Your task to perform on an android device: open app "Booking.com: Hotels and more" (install if not already installed) Image 0: 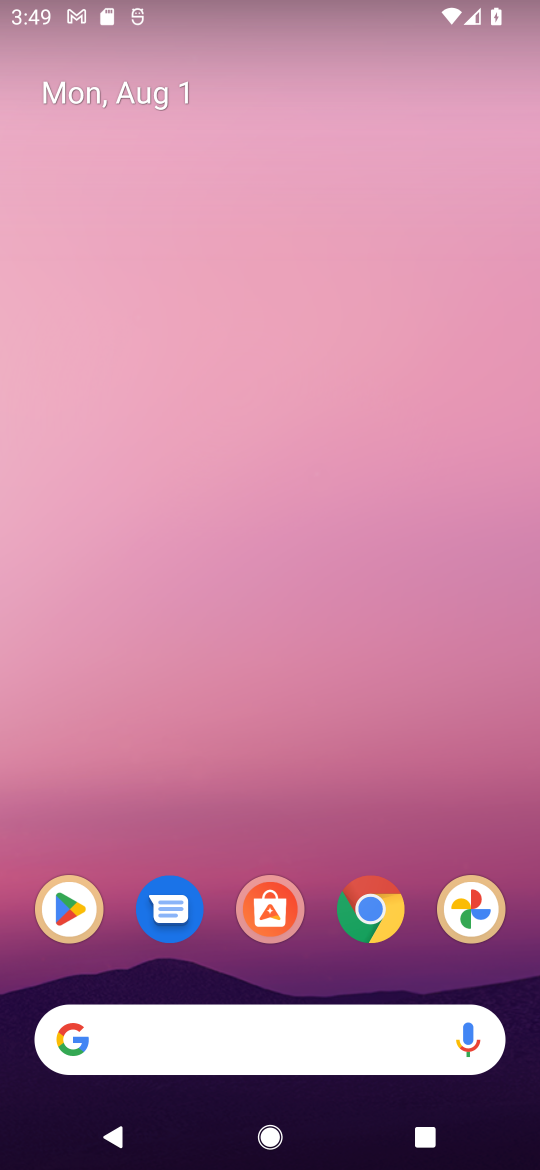
Step 0: click (77, 914)
Your task to perform on an android device: open app "Booking.com: Hotels and more" (install if not already installed) Image 1: 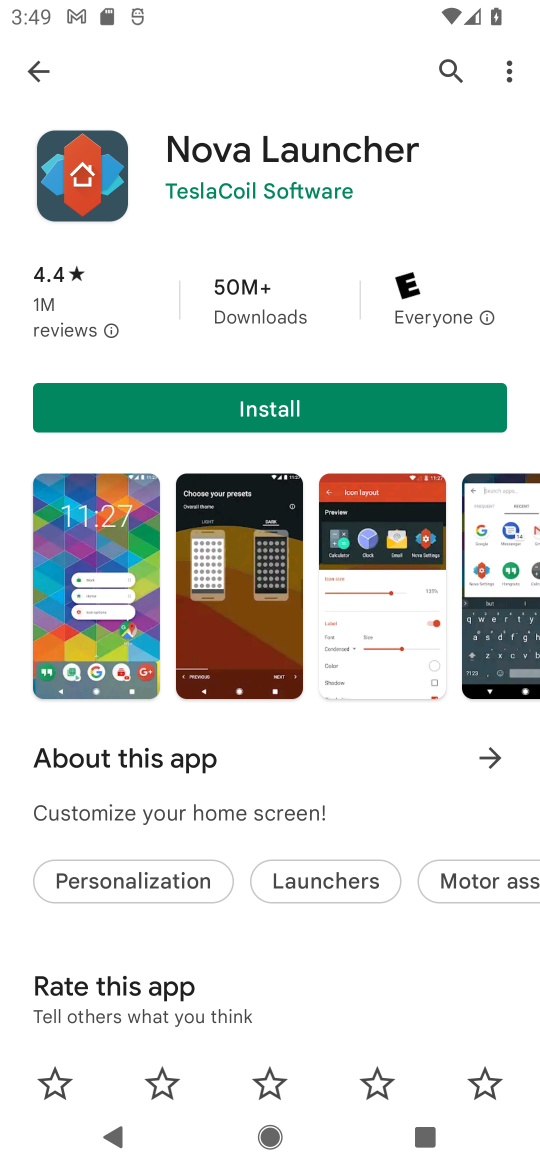
Step 1: click (34, 66)
Your task to perform on an android device: open app "Booking.com: Hotels and more" (install if not already installed) Image 2: 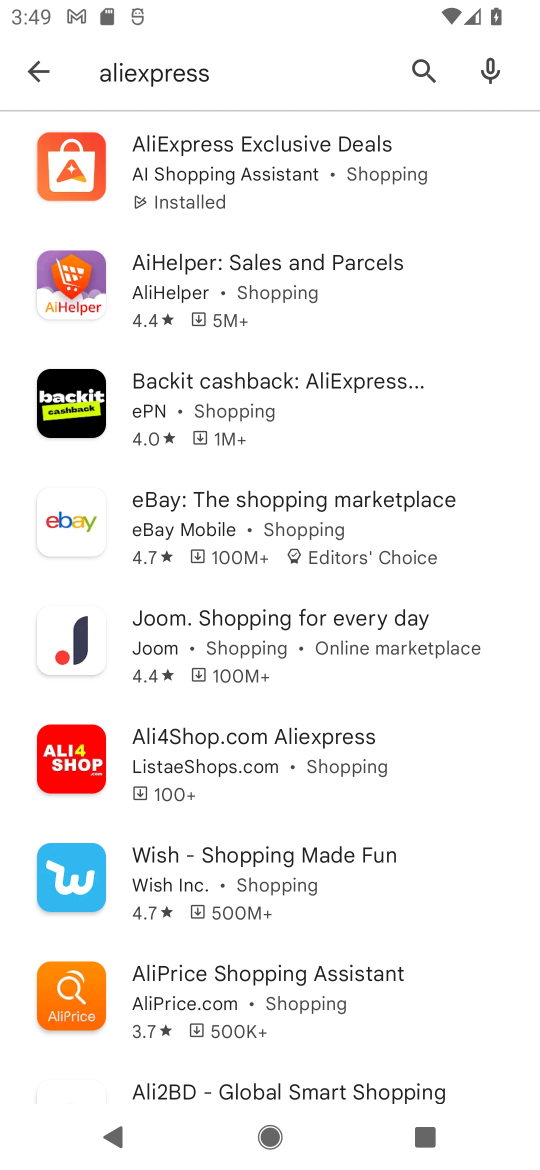
Step 2: click (249, 80)
Your task to perform on an android device: open app "Booking.com: Hotels and more" (install if not already installed) Image 3: 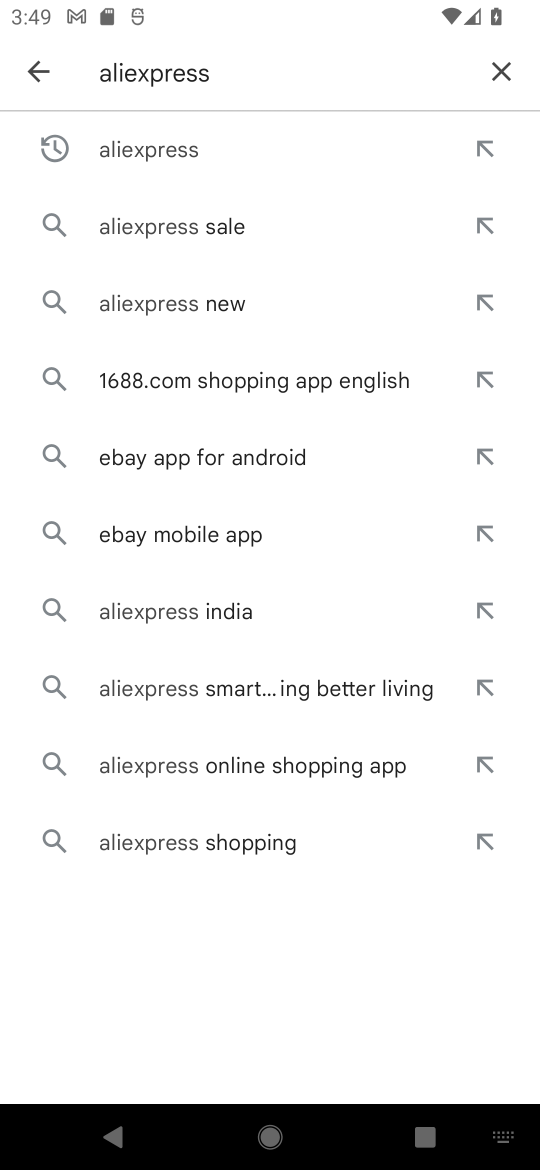
Step 3: click (514, 69)
Your task to perform on an android device: open app "Booking.com: Hotels and more" (install if not already installed) Image 4: 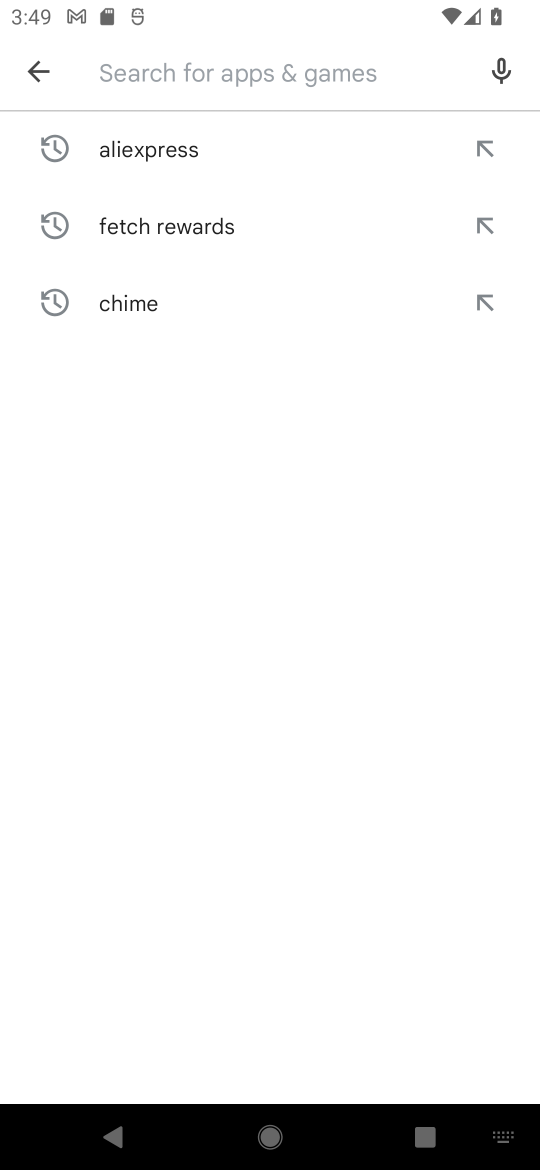
Step 4: type "Booking.com"
Your task to perform on an android device: open app "Booking.com: Hotels and more" (install if not already installed) Image 5: 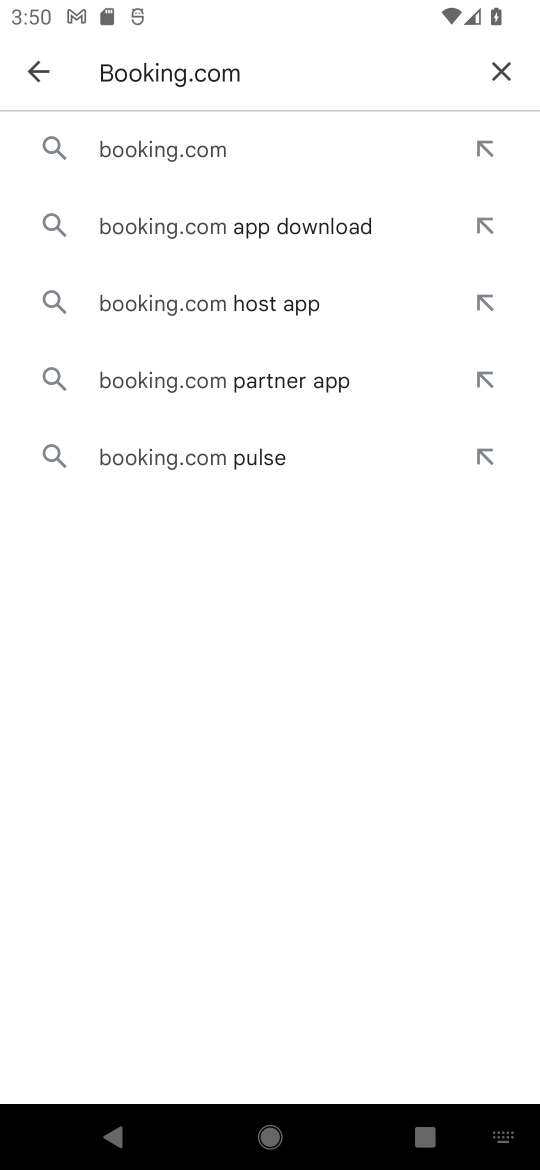
Step 5: click (178, 156)
Your task to perform on an android device: open app "Booking.com: Hotels and more" (install if not already installed) Image 6: 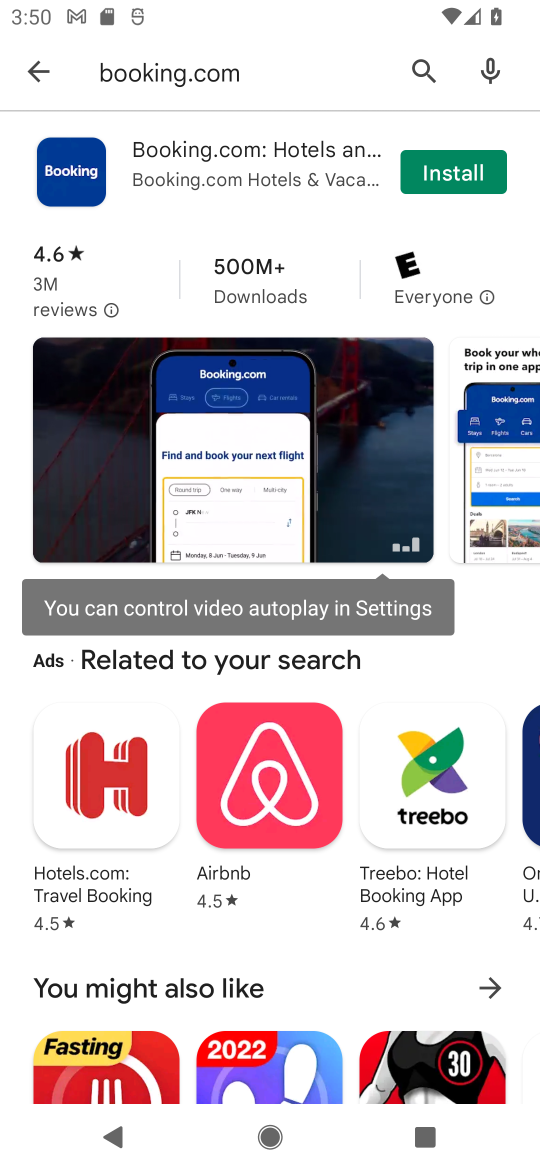
Step 6: click (460, 164)
Your task to perform on an android device: open app "Booking.com: Hotels and more" (install if not already installed) Image 7: 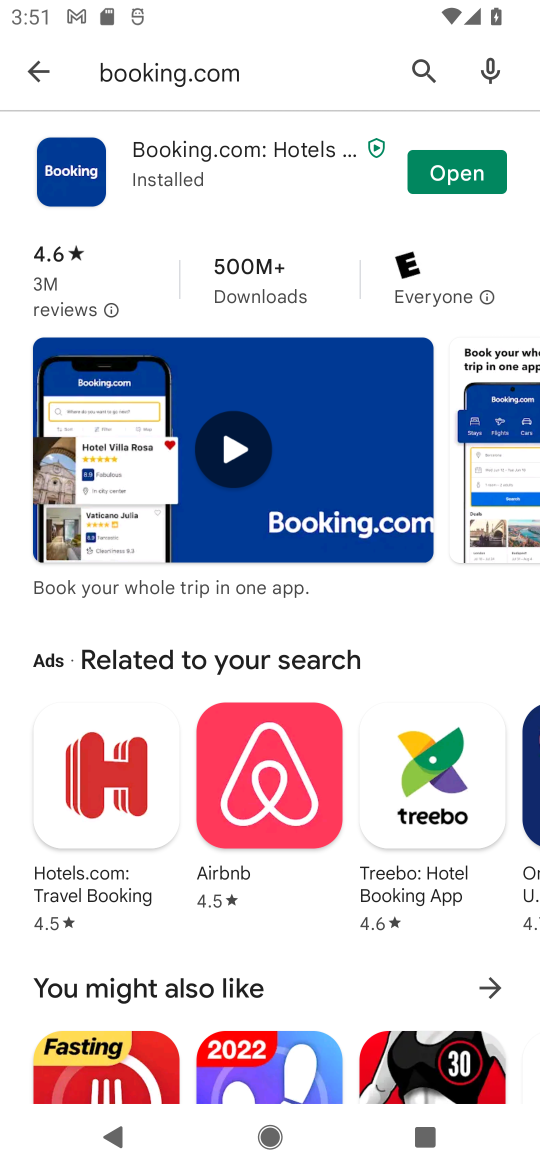
Step 7: click (486, 165)
Your task to perform on an android device: open app "Booking.com: Hotels and more" (install if not already installed) Image 8: 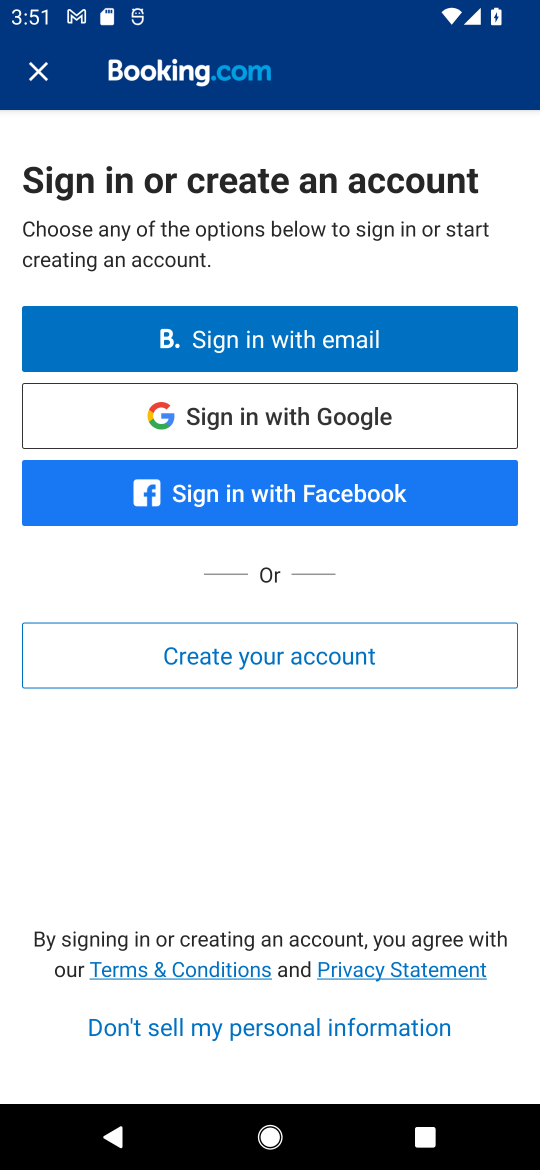
Step 8: task complete